Your task to perform on an android device: Show me recent news Image 0: 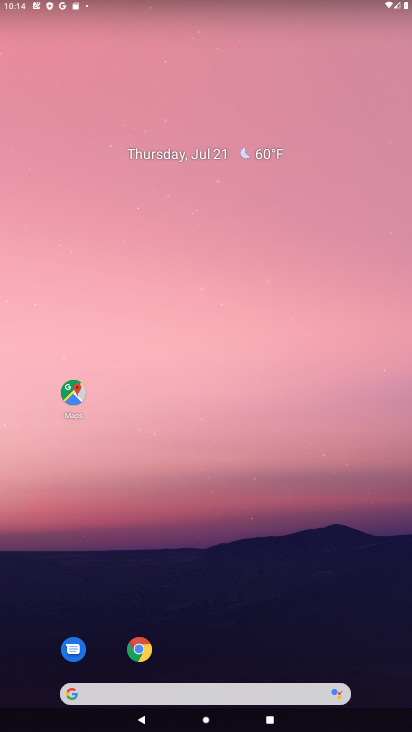
Step 0: drag from (170, 691) to (227, 201)
Your task to perform on an android device: Show me recent news Image 1: 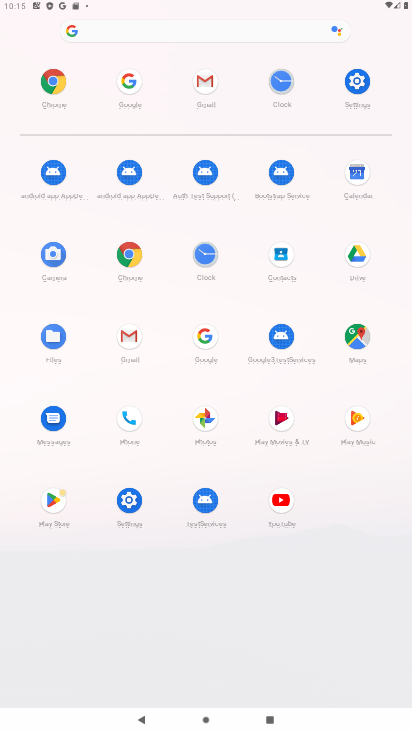
Step 1: click (202, 335)
Your task to perform on an android device: Show me recent news Image 2: 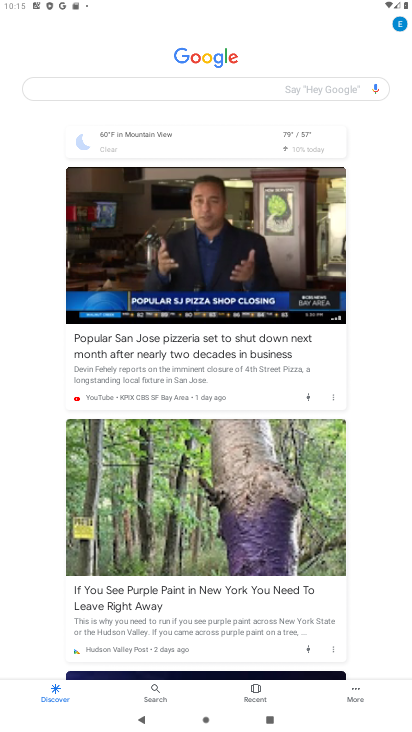
Step 2: click (264, 86)
Your task to perform on an android device: Show me recent news Image 3: 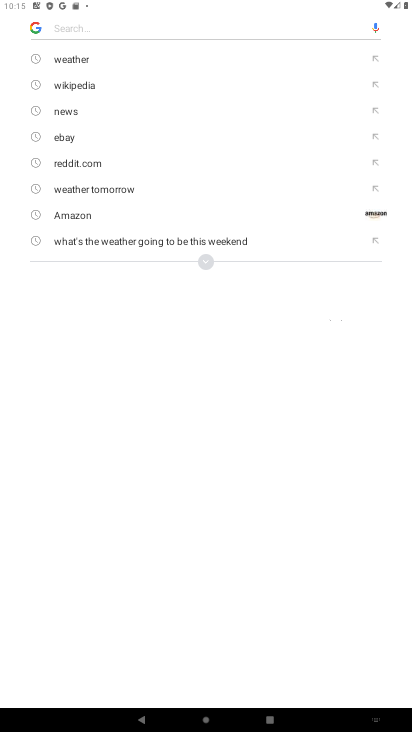
Step 3: type "recent news"
Your task to perform on an android device: Show me recent news Image 4: 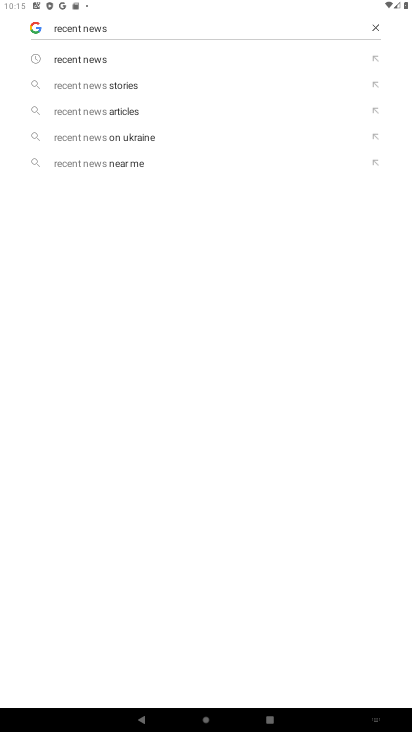
Step 4: click (87, 56)
Your task to perform on an android device: Show me recent news Image 5: 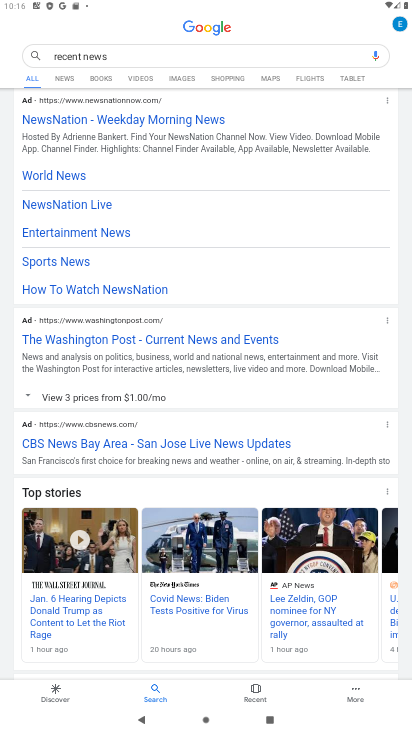
Step 5: click (82, 609)
Your task to perform on an android device: Show me recent news Image 6: 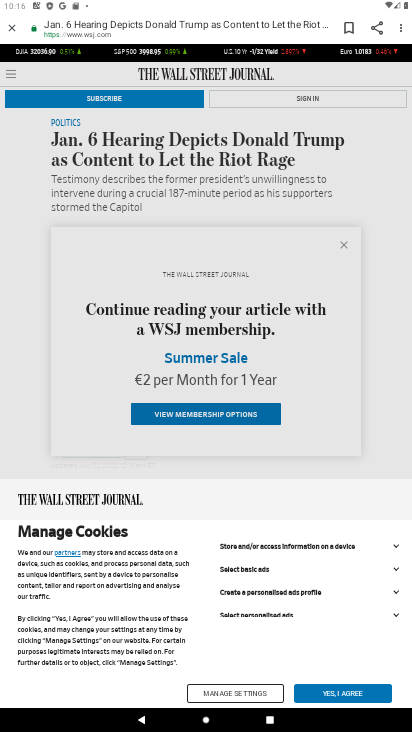
Step 6: task complete